Your task to perform on an android device: install app "Skype" Image 0: 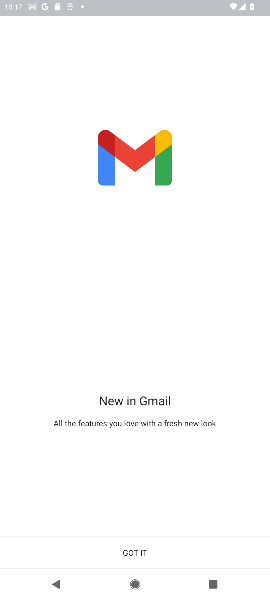
Step 0: press home button
Your task to perform on an android device: install app "Skype" Image 1: 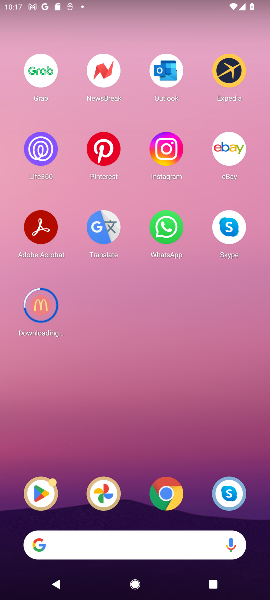
Step 1: click (36, 505)
Your task to perform on an android device: install app "Skype" Image 2: 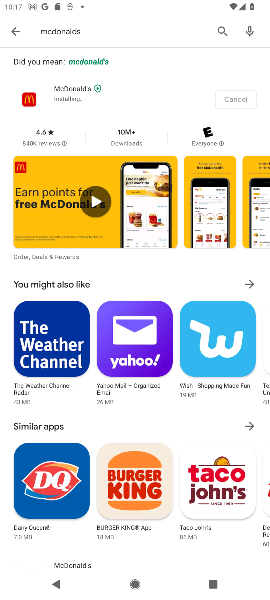
Step 2: click (217, 28)
Your task to perform on an android device: install app "Skype" Image 3: 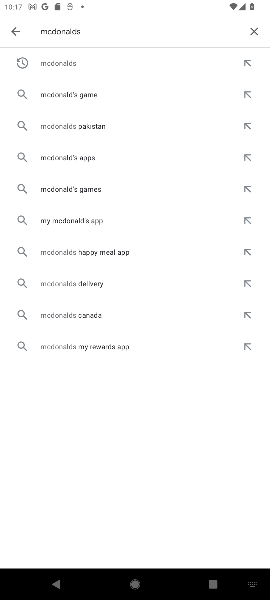
Step 3: click (258, 34)
Your task to perform on an android device: install app "Skype" Image 4: 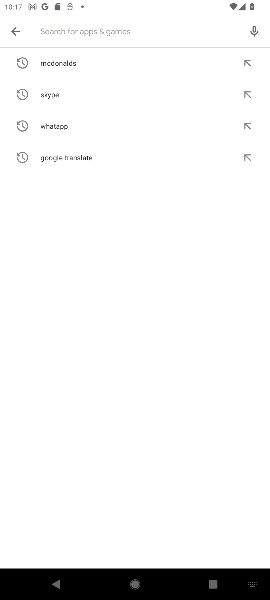
Step 4: type "skyupe"
Your task to perform on an android device: install app "Skype" Image 5: 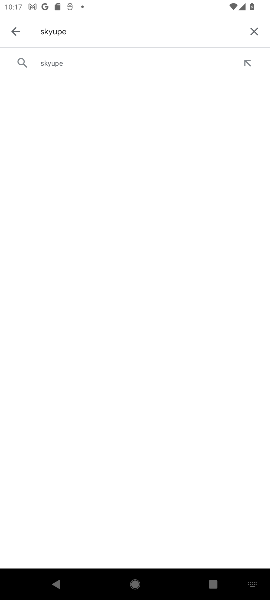
Step 5: click (130, 69)
Your task to perform on an android device: install app "Skype" Image 6: 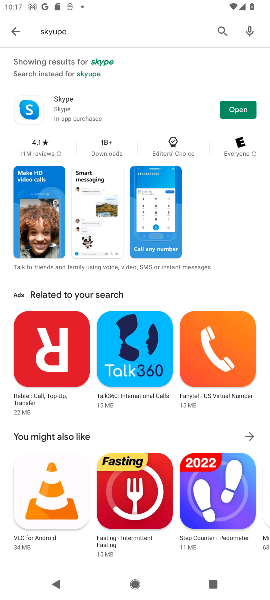
Step 6: click (235, 104)
Your task to perform on an android device: install app "Skype" Image 7: 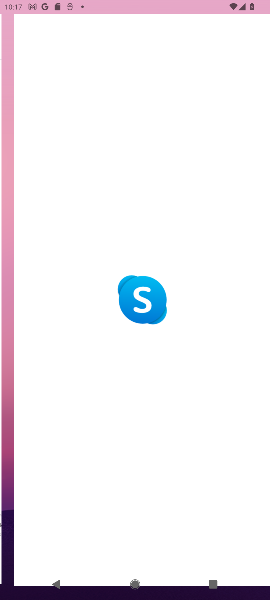
Step 7: task complete